Your task to perform on an android device: Go to location settings Image 0: 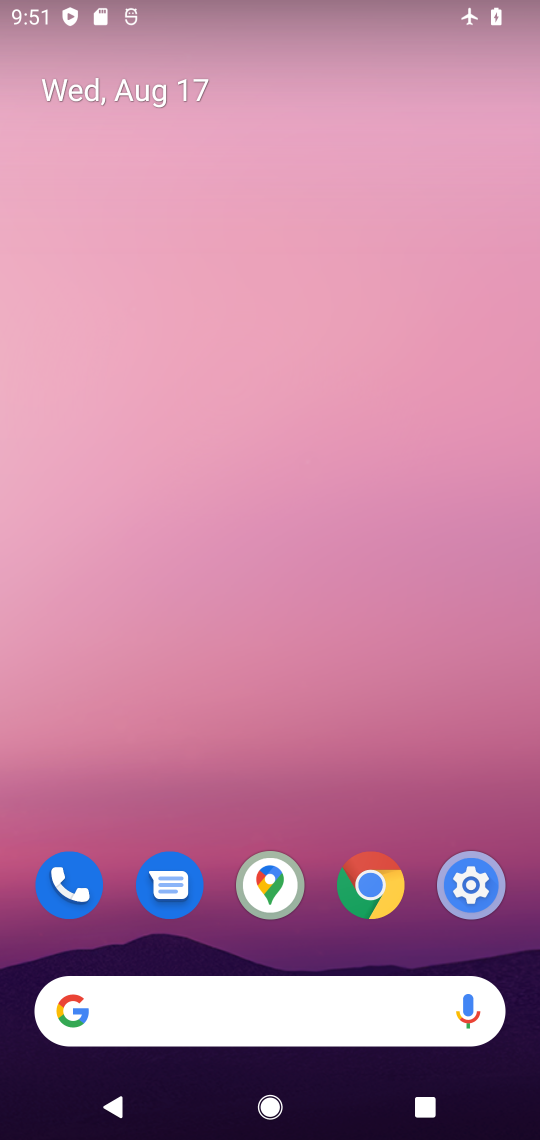
Step 0: click (467, 879)
Your task to perform on an android device: Go to location settings Image 1: 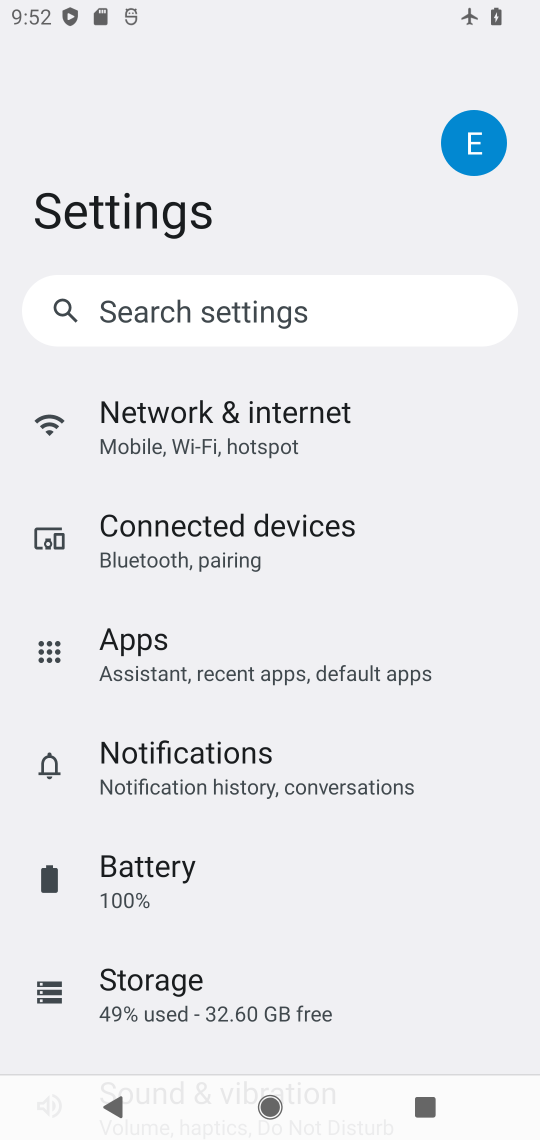
Step 1: drag from (416, 983) to (418, 385)
Your task to perform on an android device: Go to location settings Image 2: 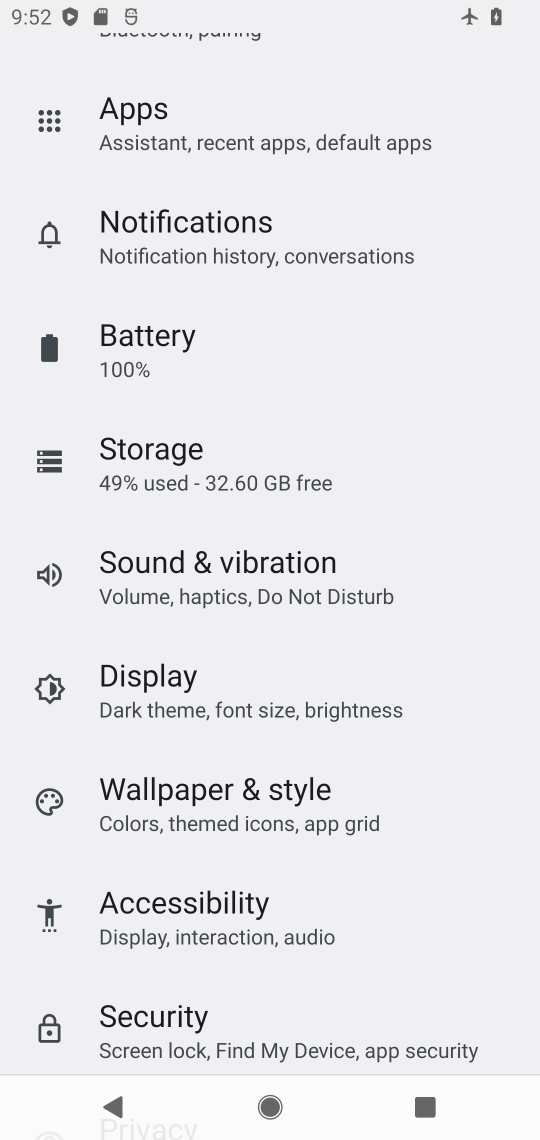
Step 2: drag from (454, 979) to (430, 306)
Your task to perform on an android device: Go to location settings Image 3: 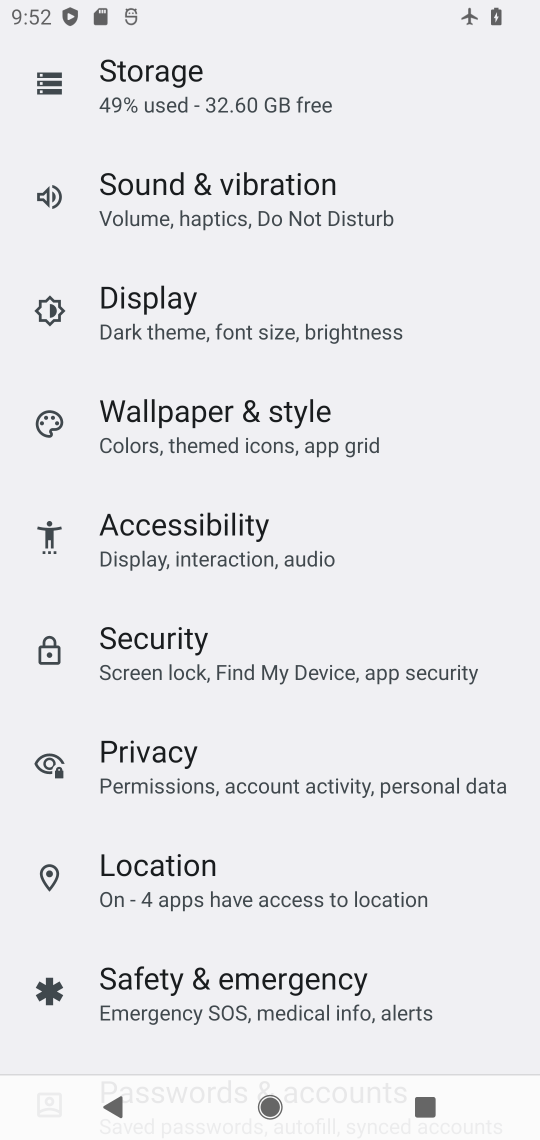
Step 3: click (154, 881)
Your task to perform on an android device: Go to location settings Image 4: 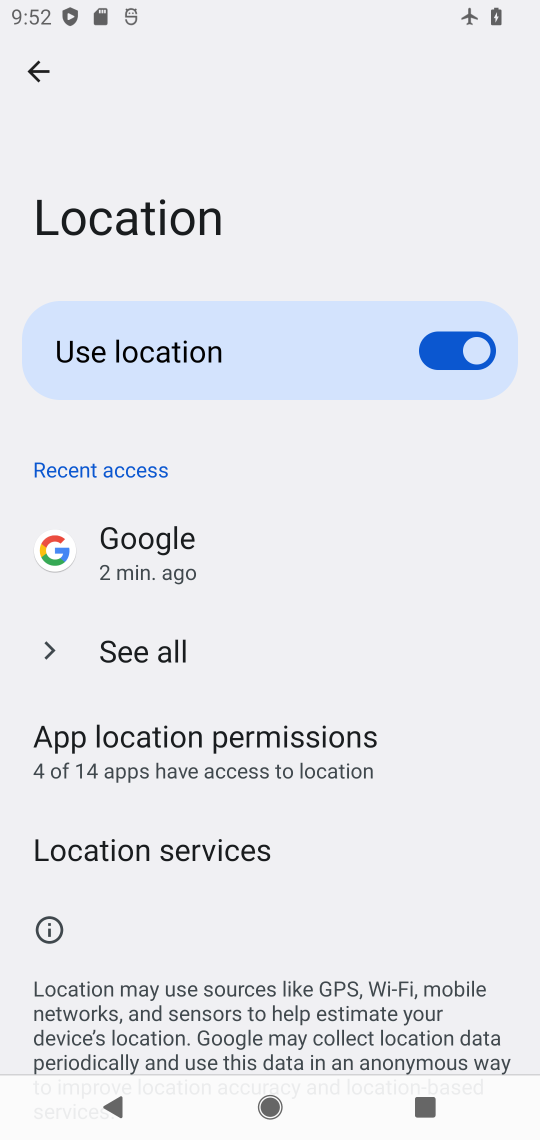
Step 4: task complete